Your task to perform on an android device: Open location settings Image 0: 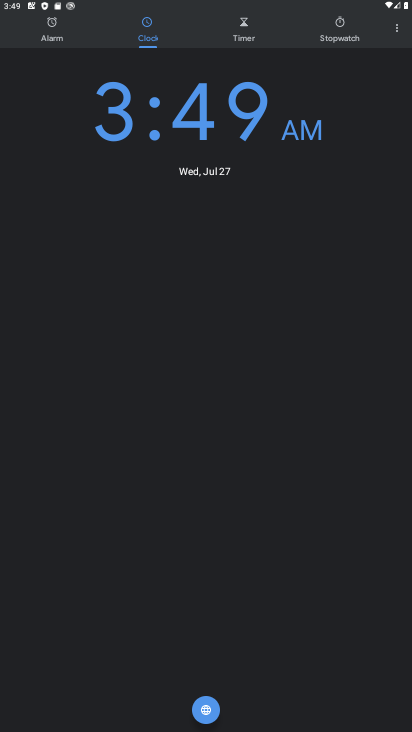
Step 0: press home button
Your task to perform on an android device: Open location settings Image 1: 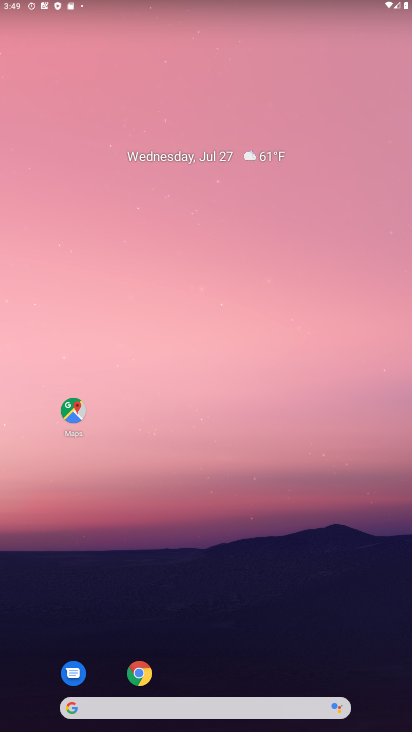
Step 1: drag from (40, 677) to (183, 320)
Your task to perform on an android device: Open location settings Image 2: 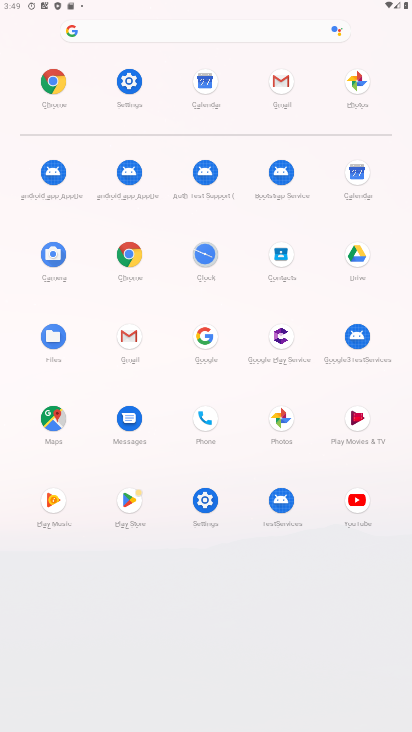
Step 2: click (202, 499)
Your task to perform on an android device: Open location settings Image 3: 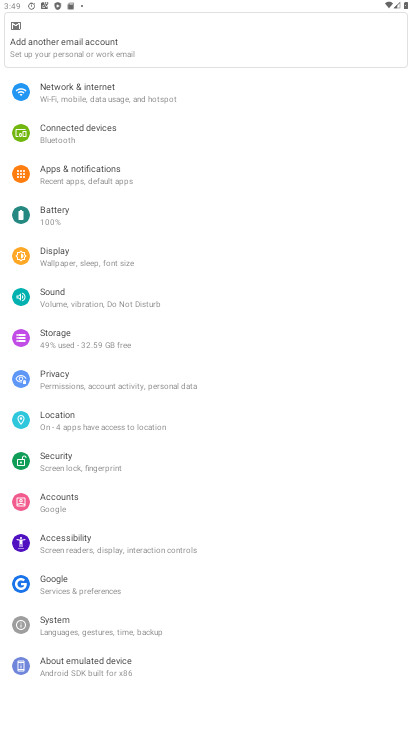
Step 3: click (73, 412)
Your task to perform on an android device: Open location settings Image 4: 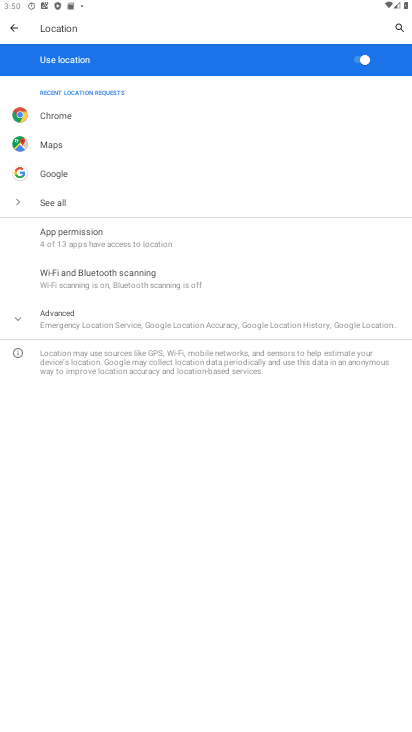
Step 4: task complete